Your task to perform on an android device: Go to ESPN.com Image 0: 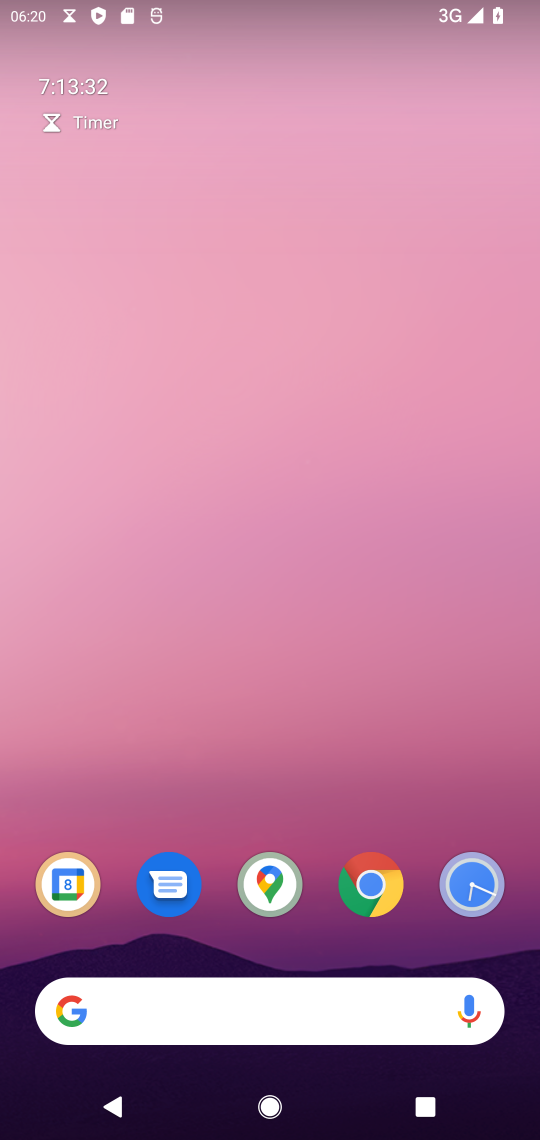
Step 0: drag from (326, 830) to (276, 94)
Your task to perform on an android device: Go to ESPN.com Image 1: 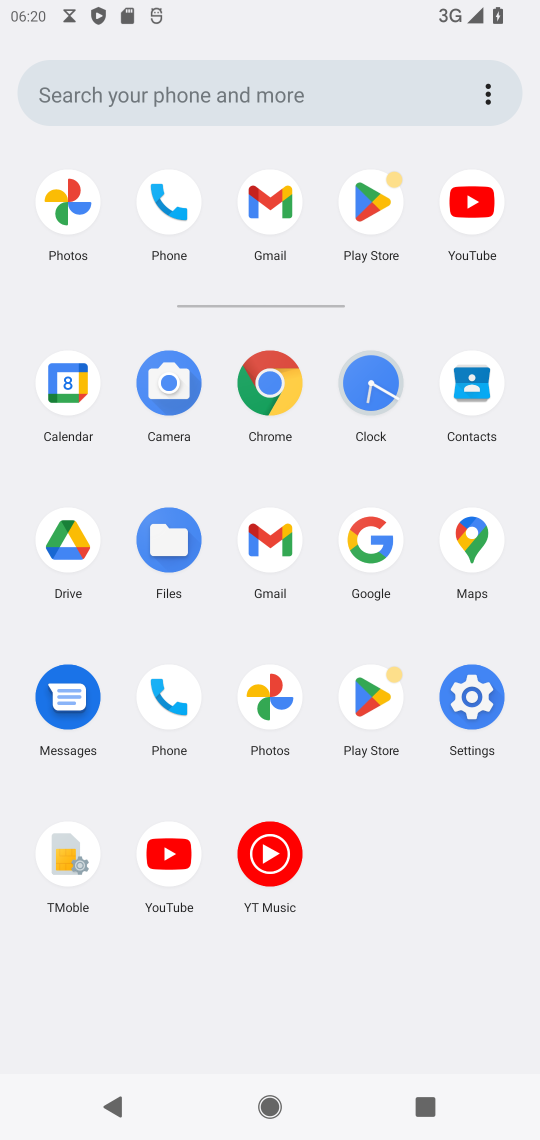
Step 1: click (263, 388)
Your task to perform on an android device: Go to ESPN.com Image 2: 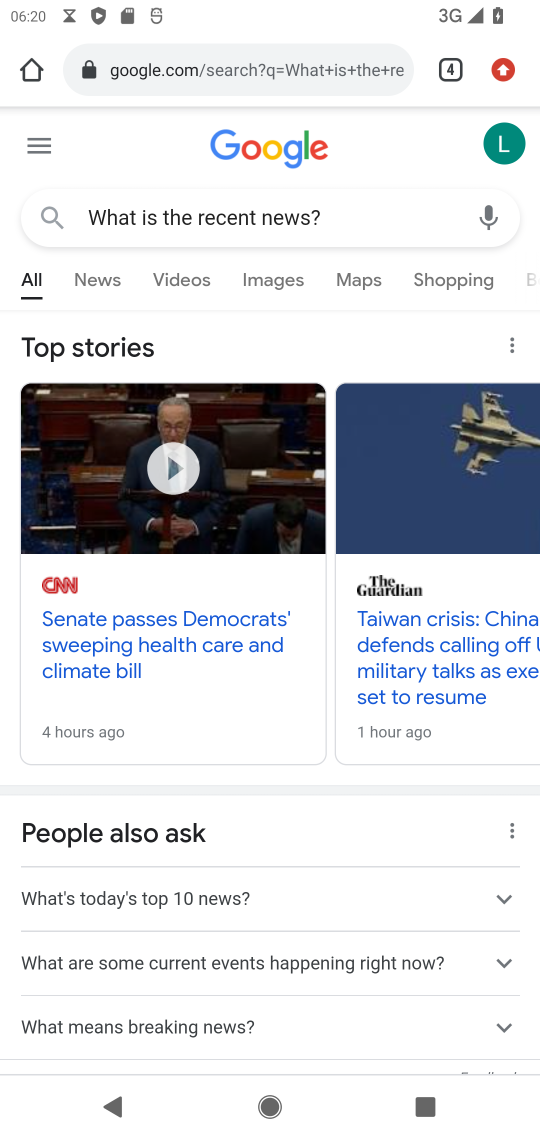
Step 2: click (450, 70)
Your task to perform on an android device: Go to ESPN.com Image 3: 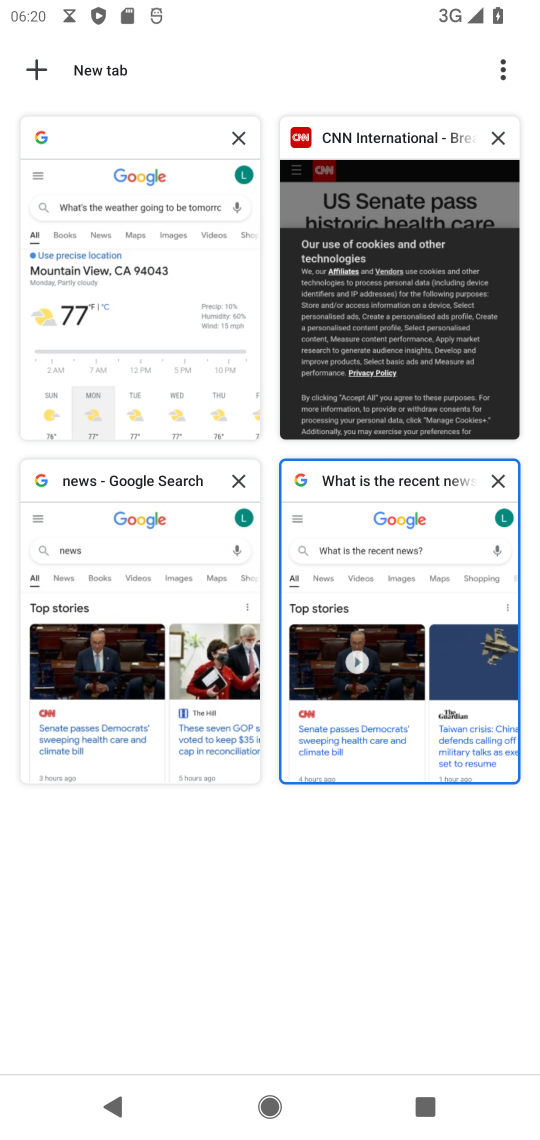
Step 3: click (116, 78)
Your task to perform on an android device: Go to ESPN.com Image 4: 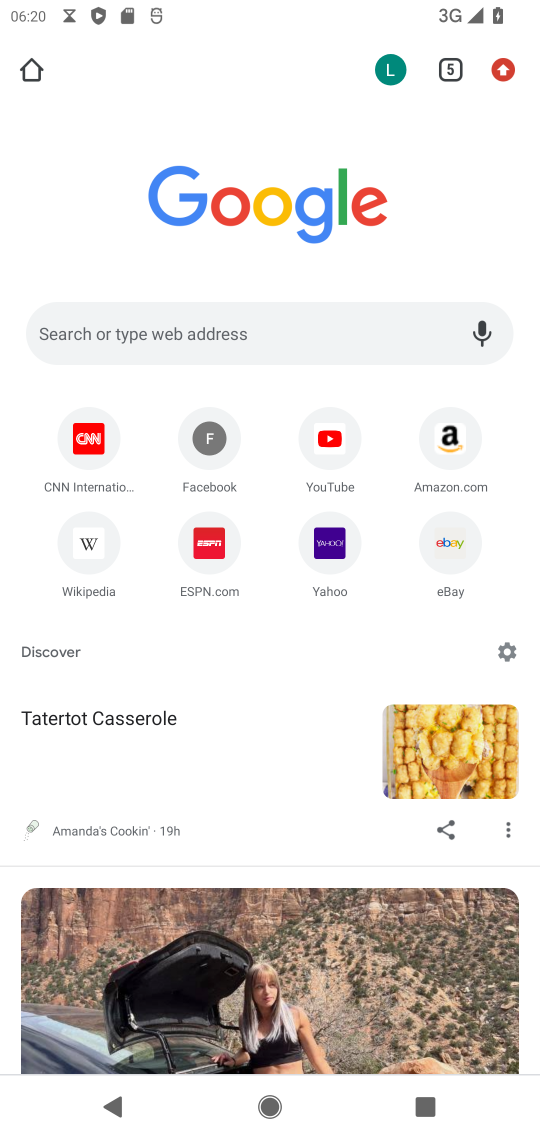
Step 4: click (455, 560)
Your task to perform on an android device: Go to ESPN.com Image 5: 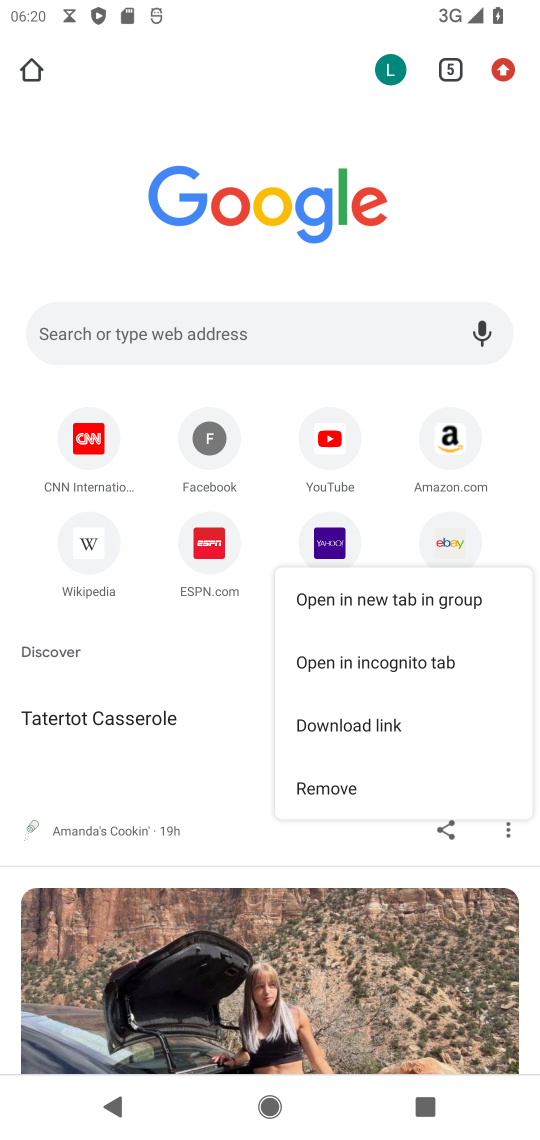
Step 5: click (212, 537)
Your task to perform on an android device: Go to ESPN.com Image 6: 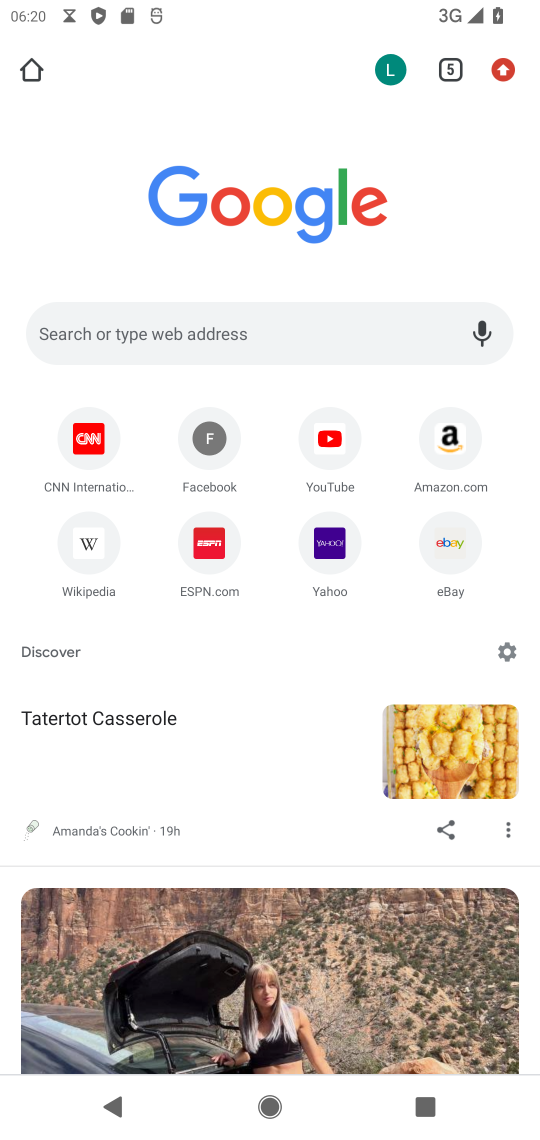
Step 6: click (212, 537)
Your task to perform on an android device: Go to ESPN.com Image 7: 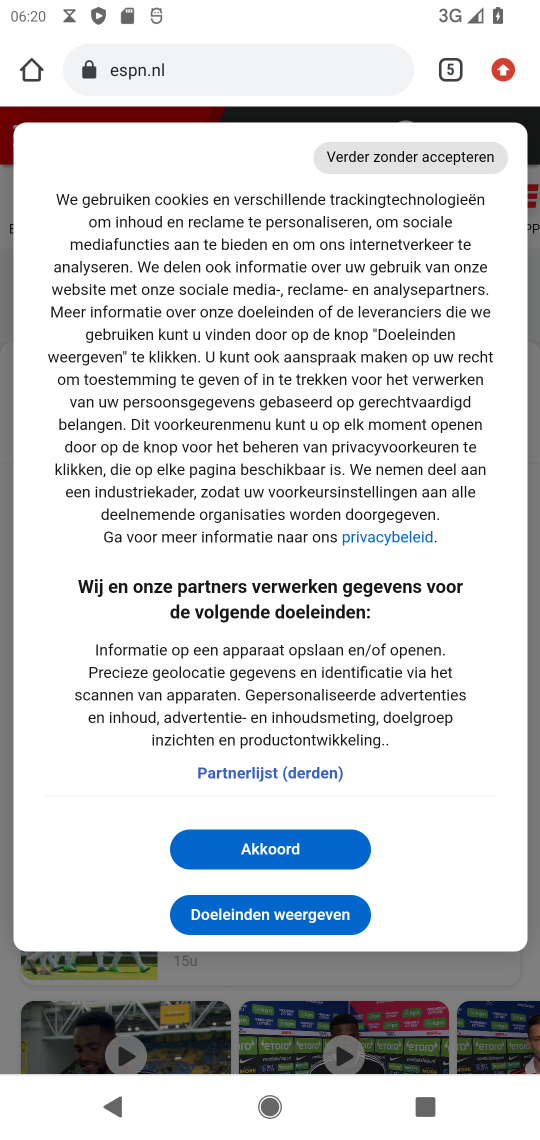
Step 7: task complete